Your task to perform on an android device: open a new tab in the chrome app Image 0: 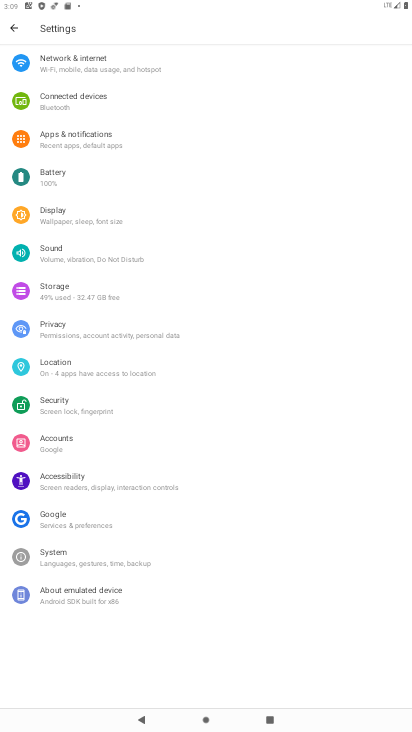
Step 0: press home button
Your task to perform on an android device: open a new tab in the chrome app Image 1: 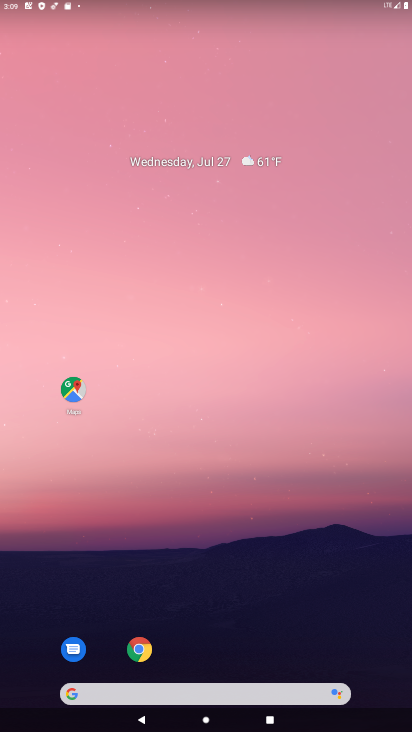
Step 1: click (138, 652)
Your task to perform on an android device: open a new tab in the chrome app Image 2: 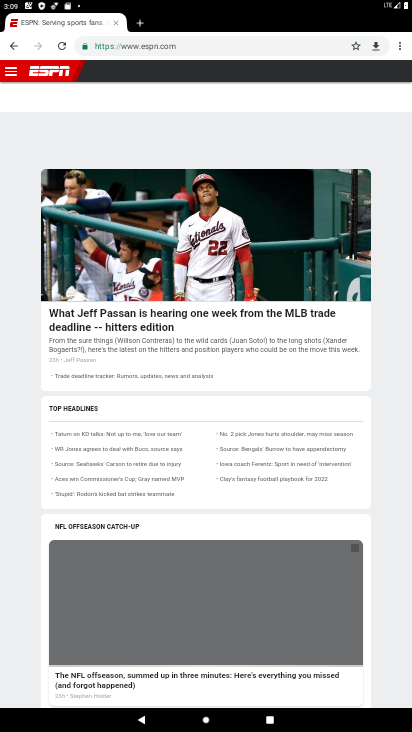
Step 2: click (400, 42)
Your task to perform on an android device: open a new tab in the chrome app Image 3: 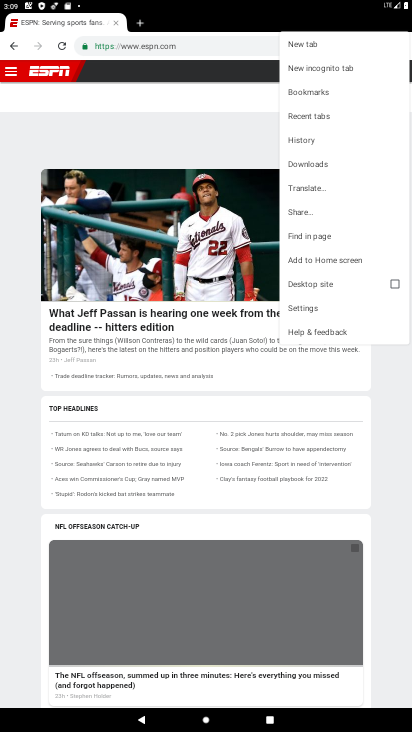
Step 3: click (306, 44)
Your task to perform on an android device: open a new tab in the chrome app Image 4: 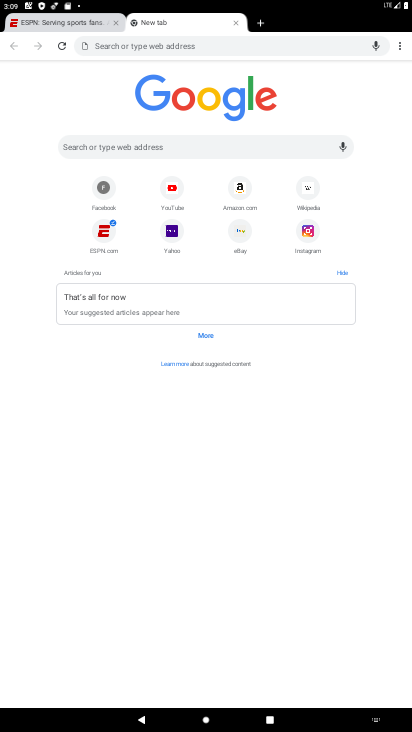
Step 4: task complete